Your task to perform on an android device: turn notification dots off Image 0: 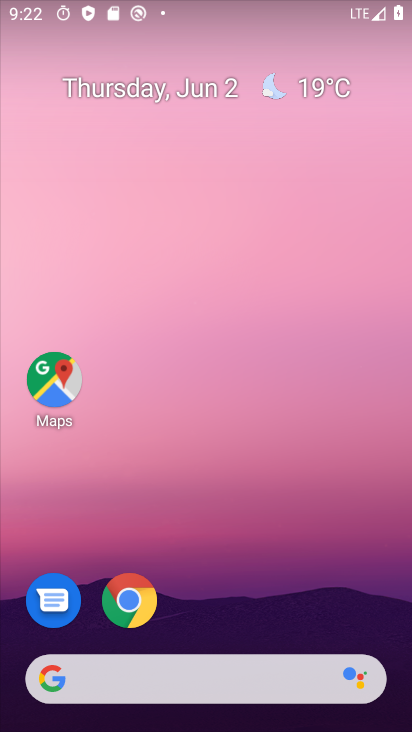
Step 0: drag from (225, 625) to (217, 236)
Your task to perform on an android device: turn notification dots off Image 1: 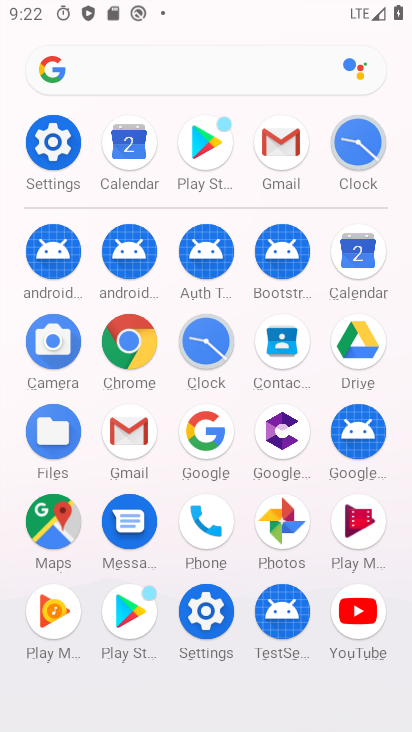
Step 1: click (46, 140)
Your task to perform on an android device: turn notification dots off Image 2: 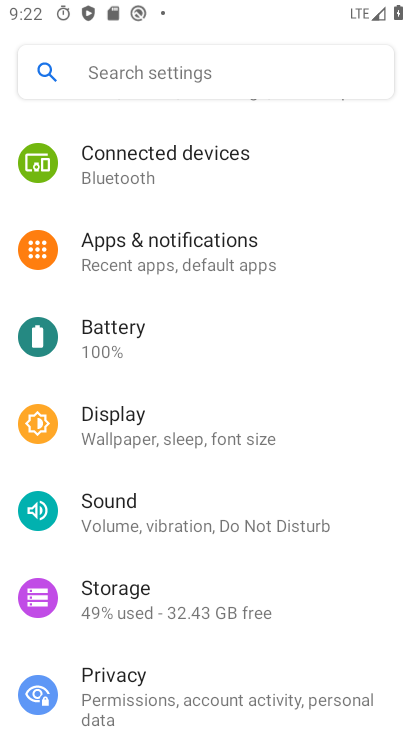
Step 2: click (190, 257)
Your task to perform on an android device: turn notification dots off Image 3: 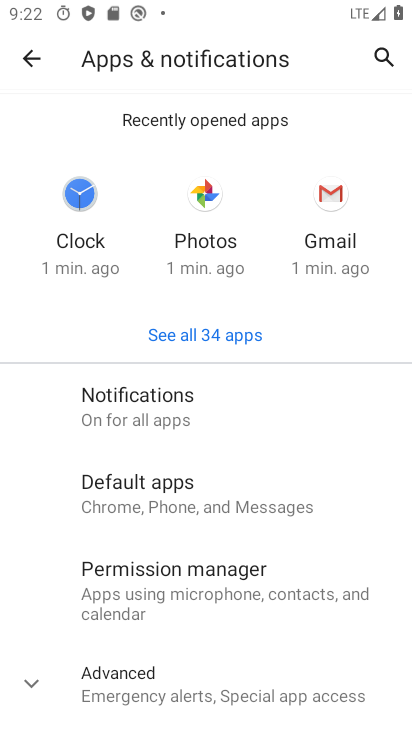
Step 3: click (125, 419)
Your task to perform on an android device: turn notification dots off Image 4: 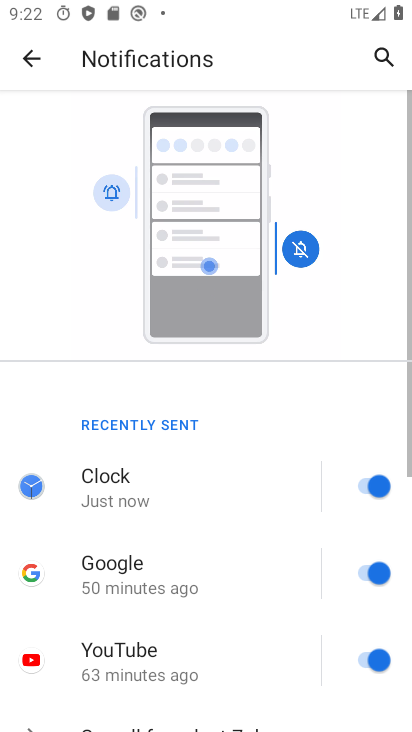
Step 4: drag from (187, 586) to (199, 142)
Your task to perform on an android device: turn notification dots off Image 5: 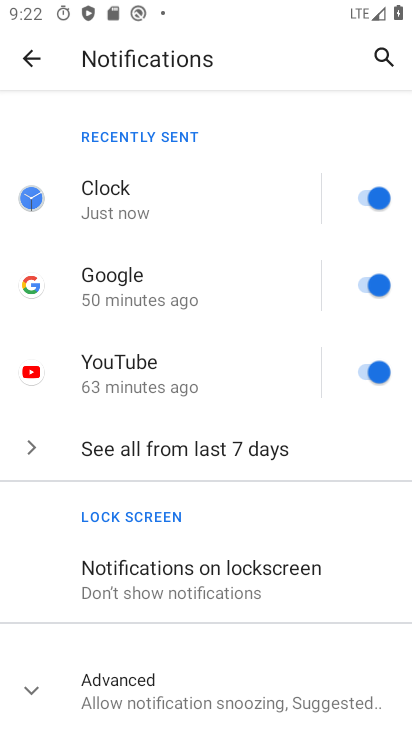
Step 5: drag from (262, 576) to (266, 303)
Your task to perform on an android device: turn notification dots off Image 6: 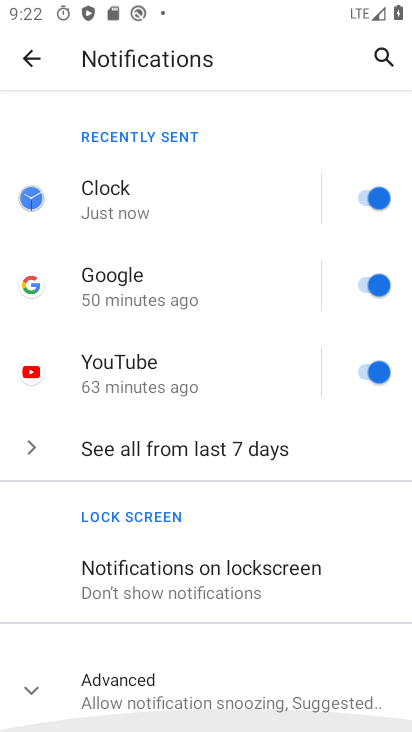
Step 6: drag from (252, 341) to (279, 524)
Your task to perform on an android device: turn notification dots off Image 7: 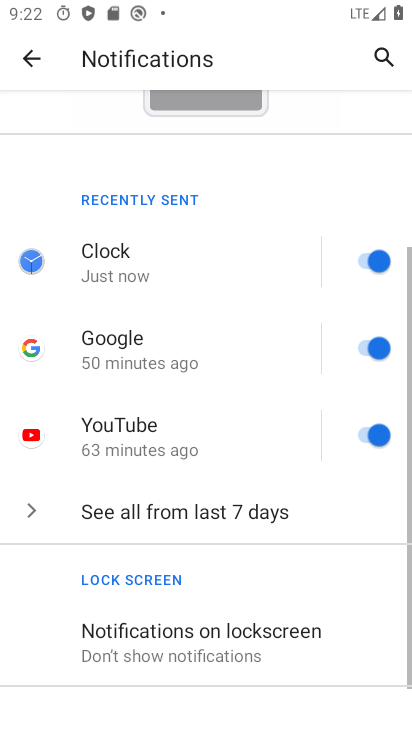
Step 7: drag from (222, 221) to (242, 490)
Your task to perform on an android device: turn notification dots off Image 8: 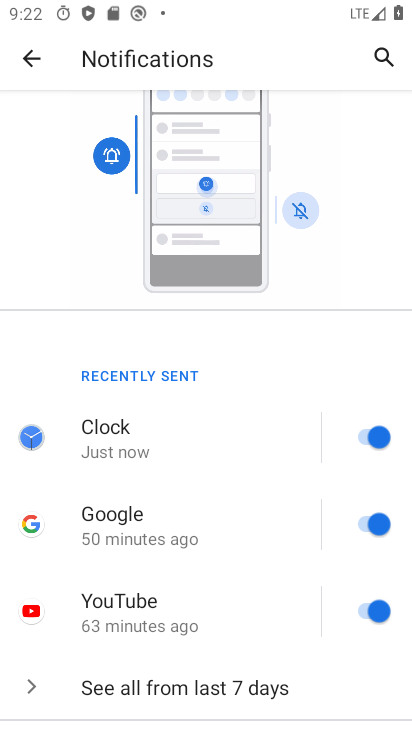
Step 8: drag from (242, 657) to (225, 184)
Your task to perform on an android device: turn notification dots off Image 9: 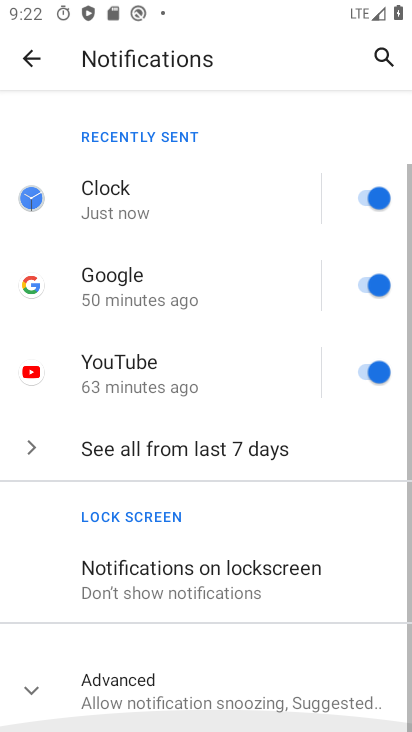
Step 9: drag from (223, 459) to (229, 161)
Your task to perform on an android device: turn notification dots off Image 10: 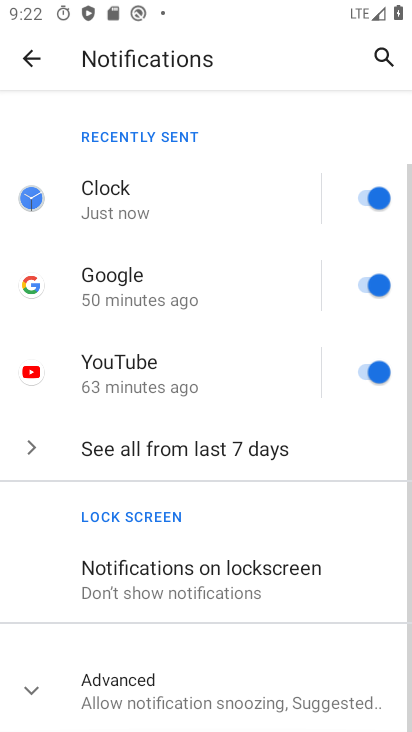
Step 10: click (179, 701)
Your task to perform on an android device: turn notification dots off Image 11: 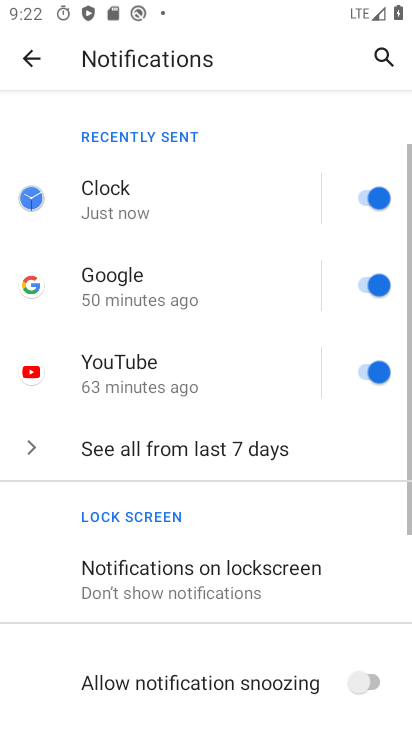
Step 11: drag from (186, 675) to (197, 155)
Your task to perform on an android device: turn notification dots off Image 12: 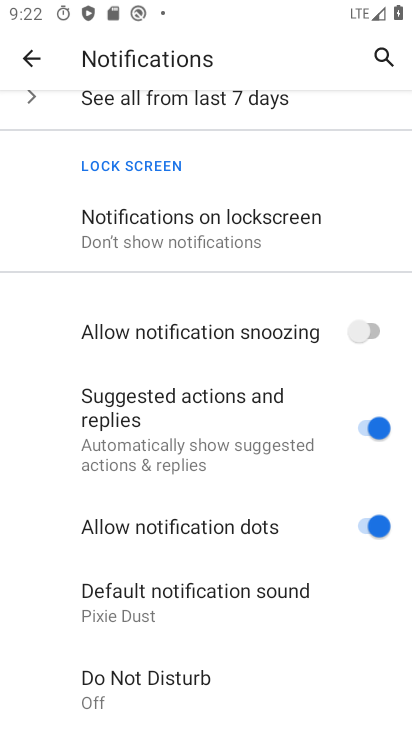
Step 12: click (365, 524)
Your task to perform on an android device: turn notification dots off Image 13: 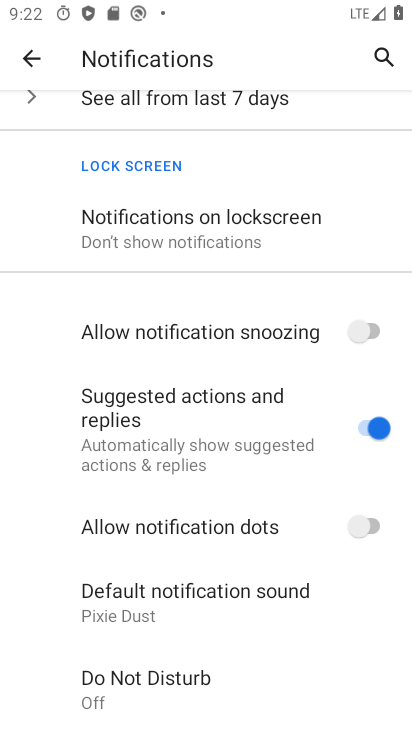
Step 13: task complete